Your task to perform on an android device: change the clock display to analog Image 0: 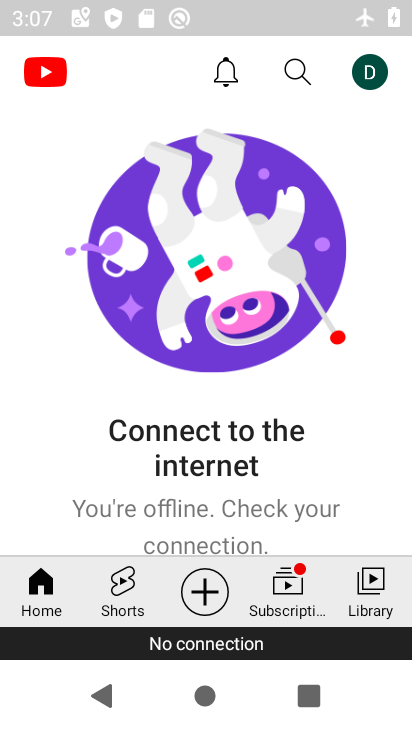
Step 0: press home button
Your task to perform on an android device: change the clock display to analog Image 1: 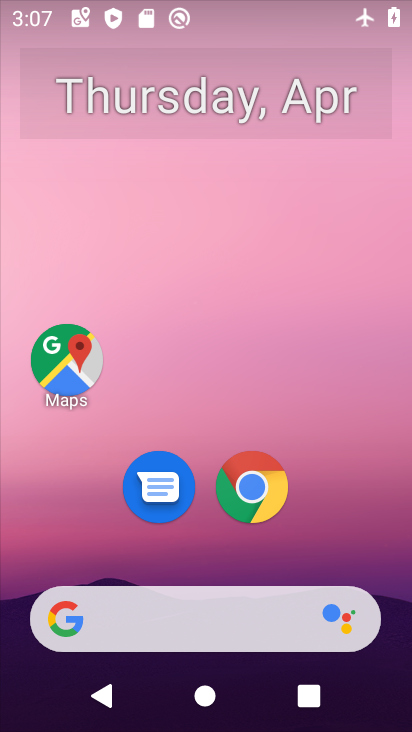
Step 1: drag from (282, 630) to (298, 220)
Your task to perform on an android device: change the clock display to analog Image 2: 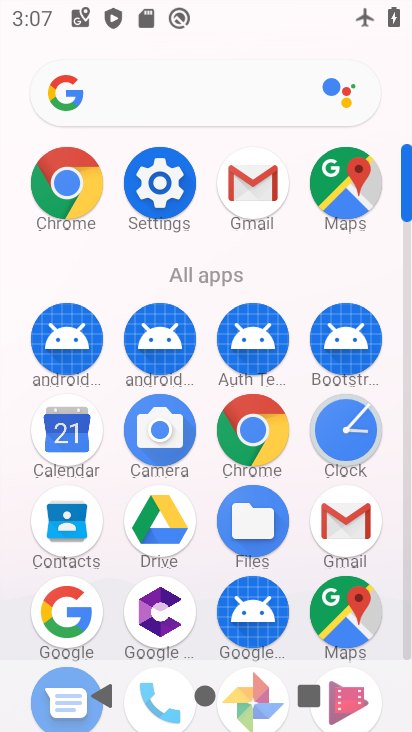
Step 2: click (298, 220)
Your task to perform on an android device: change the clock display to analog Image 3: 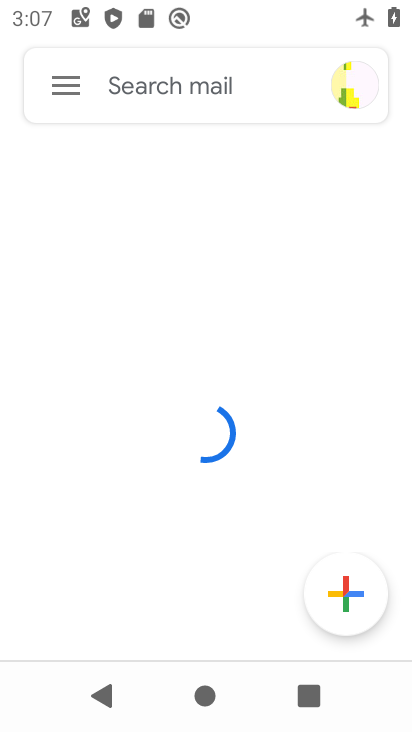
Step 3: press home button
Your task to perform on an android device: change the clock display to analog Image 4: 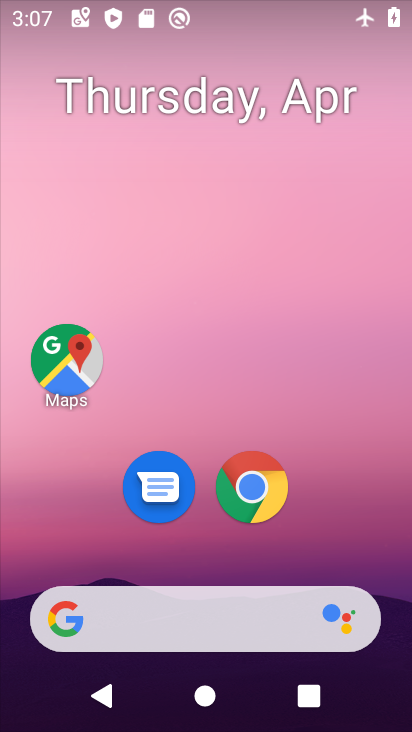
Step 4: drag from (209, 544) to (301, 8)
Your task to perform on an android device: change the clock display to analog Image 5: 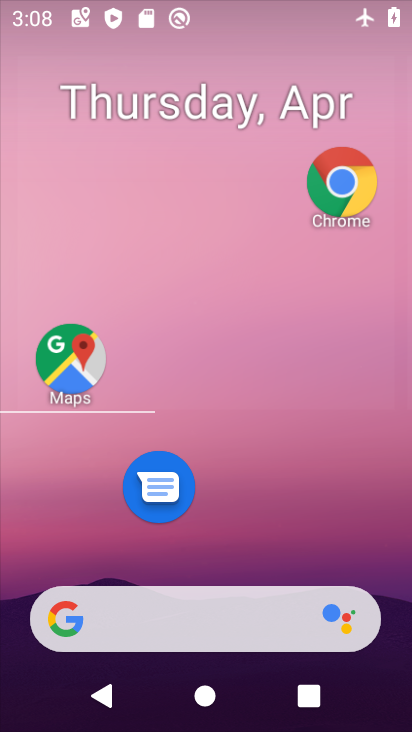
Step 5: click (259, 461)
Your task to perform on an android device: change the clock display to analog Image 6: 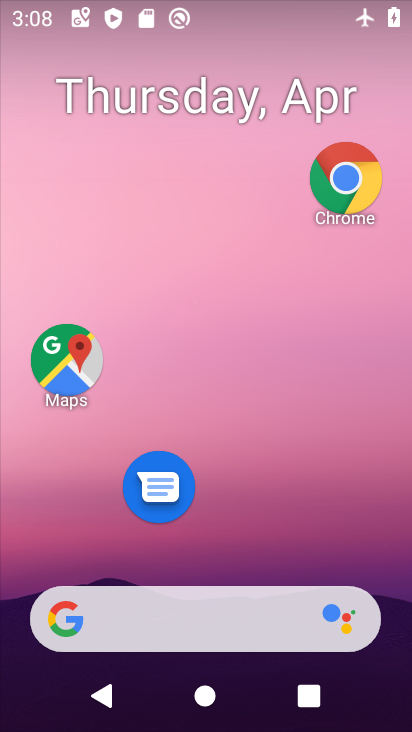
Step 6: drag from (266, 566) to (309, 122)
Your task to perform on an android device: change the clock display to analog Image 7: 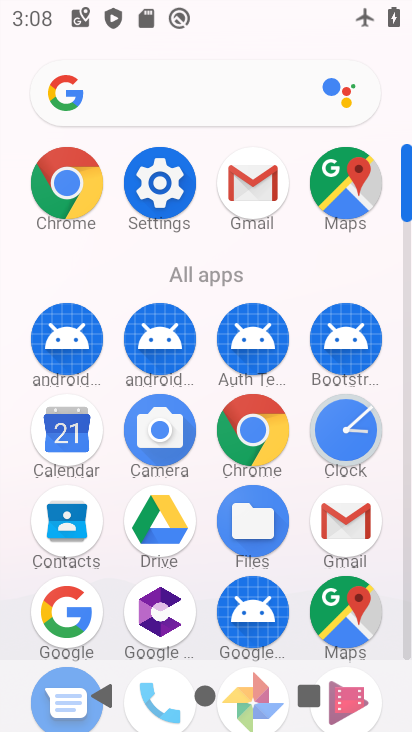
Step 7: click (339, 442)
Your task to perform on an android device: change the clock display to analog Image 8: 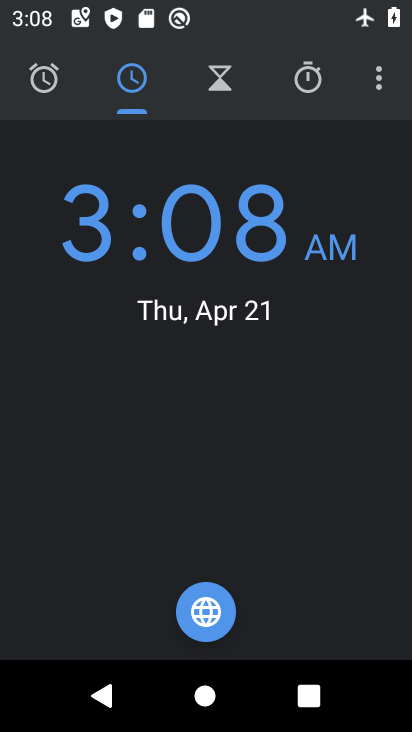
Step 8: click (373, 89)
Your task to perform on an android device: change the clock display to analog Image 9: 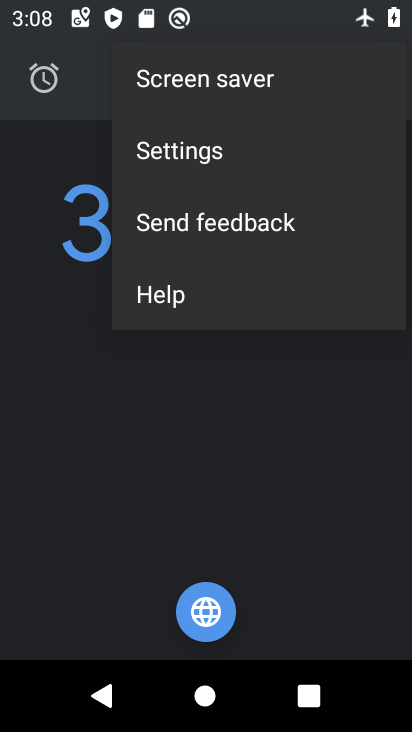
Step 9: click (179, 161)
Your task to perform on an android device: change the clock display to analog Image 10: 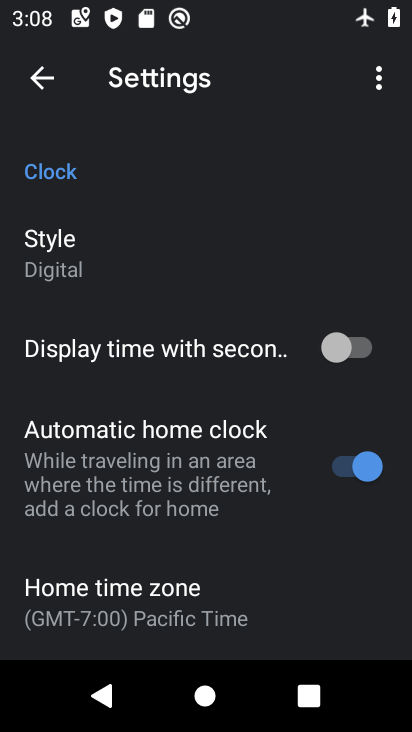
Step 10: click (134, 261)
Your task to perform on an android device: change the clock display to analog Image 11: 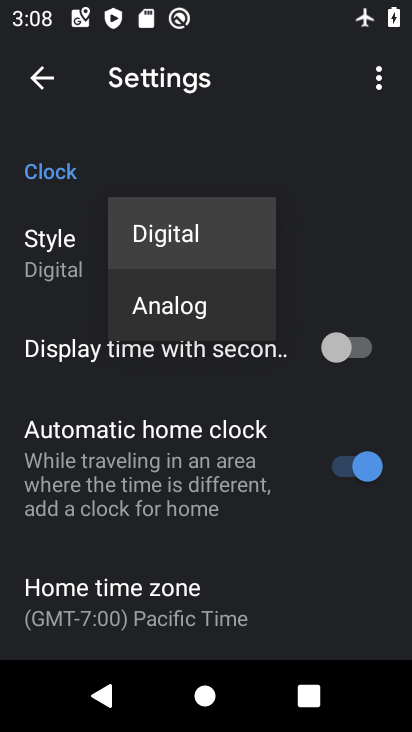
Step 11: click (161, 300)
Your task to perform on an android device: change the clock display to analog Image 12: 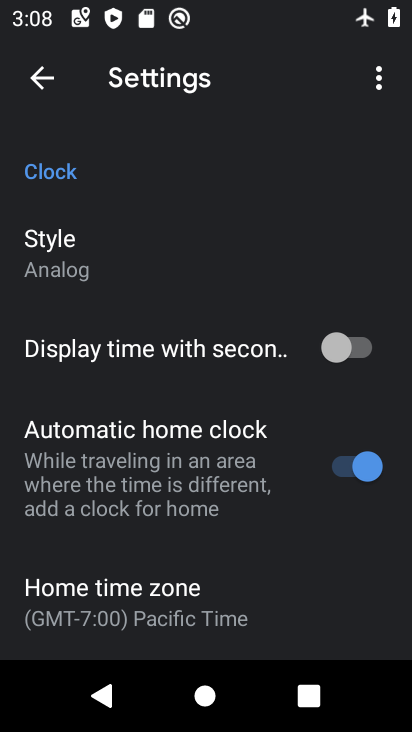
Step 12: task complete